Your task to perform on an android device: change the clock style Image 0: 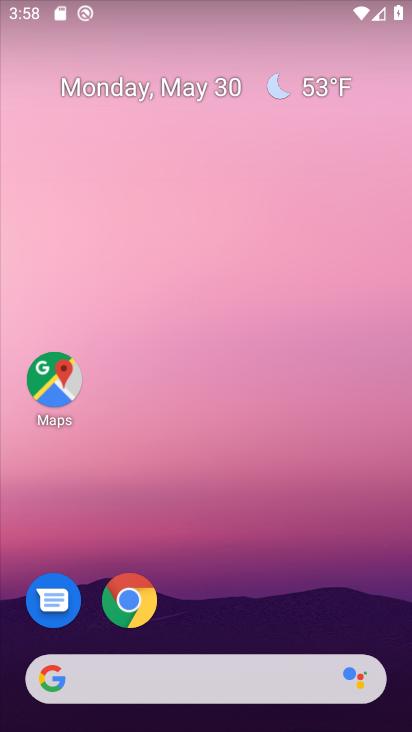
Step 0: drag from (325, 632) to (233, 80)
Your task to perform on an android device: change the clock style Image 1: 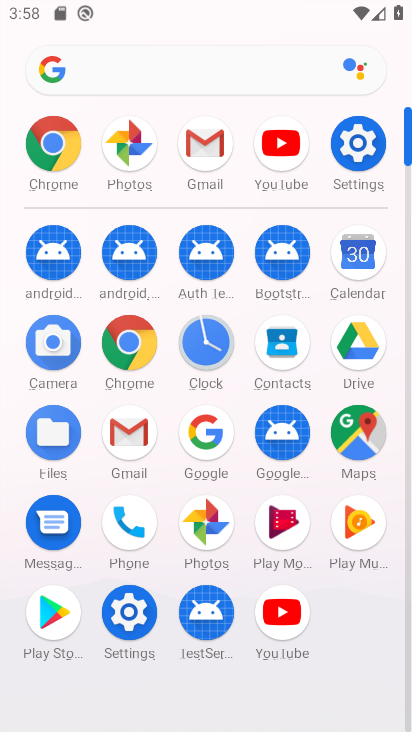
Step 1: click (202, 350)
Your task to perform on an android device: change the clock style Image 2: 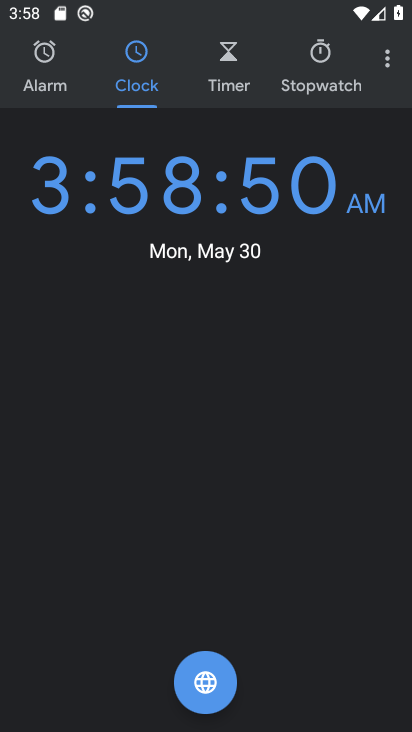
Step 2: click (393, 47)
Your task to perform on an android device: change the clock style Image 3: 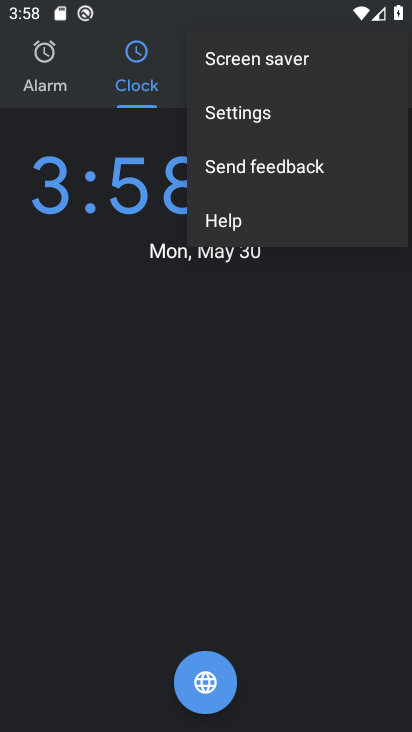
Step 3: click (244, 110)
Your task to perform on an android device: change the clock style Image 4: 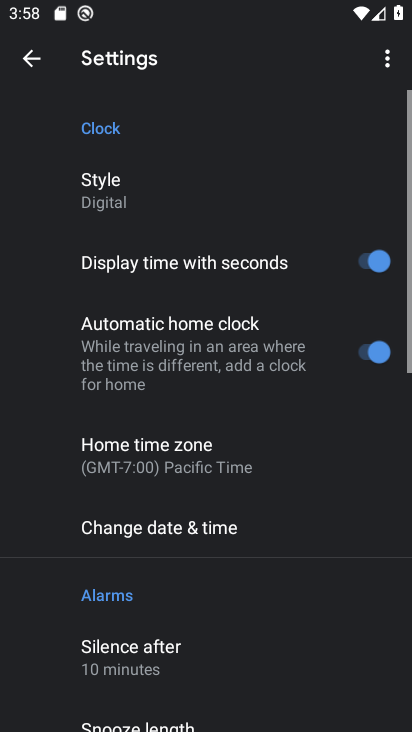
Step 4: click (106, 199)
Your task to perform on an android device: change the clock style Image 5: 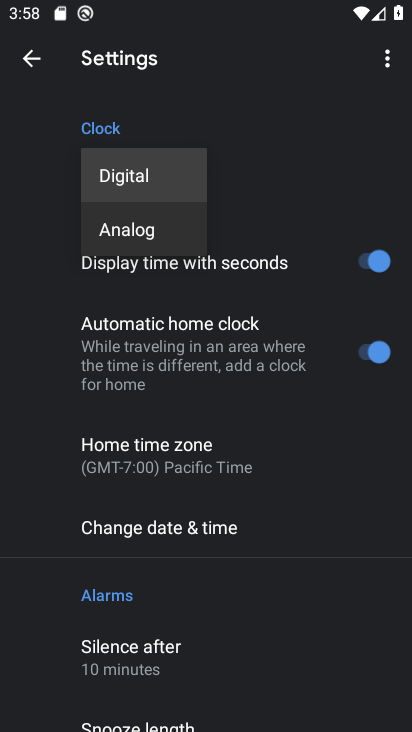
Step 5: click (136, 234)
Your task to perform on an android device: change the clock style Image 6: 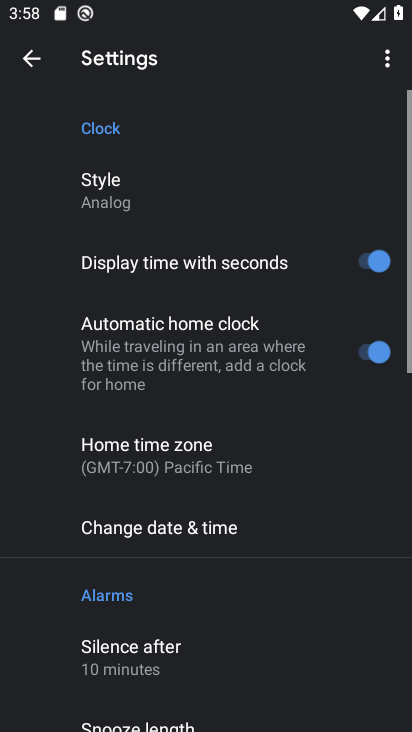
Step 6: task complete